Your task to perform on an android device: change alarm snooze length Image 0: 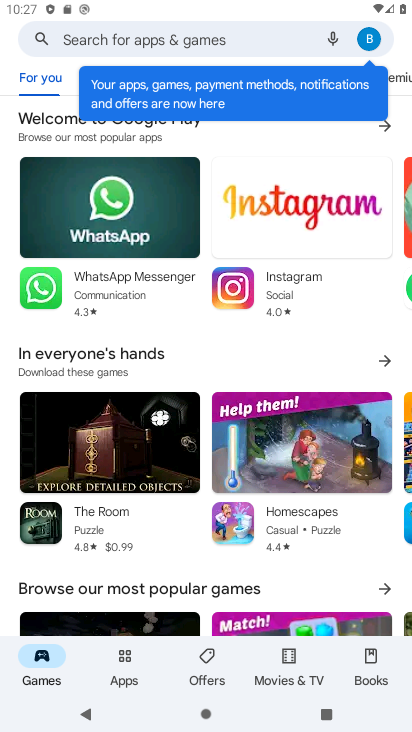
Step 0: press home button
Your task to perform on an android device: change alarm snooze length Image 1: 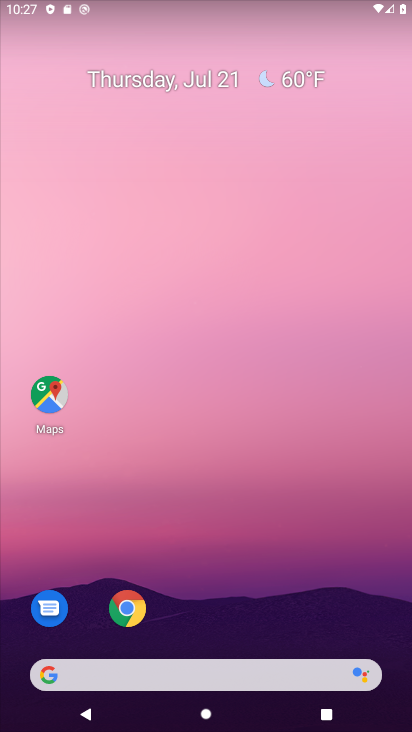
Step 1: drag from (246, 613) to (271, 3)
Your task to perform on an android device: change alarm snooze length Image 2: 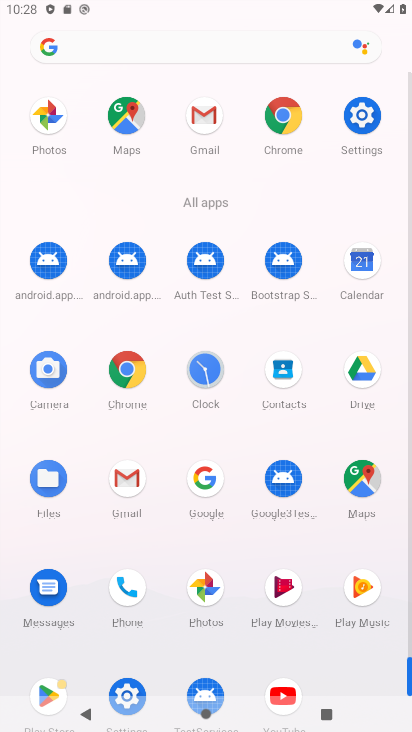
Step 2: drag from (152, 631) to (178, 441)
Your task to perform on an android device: change alarm snooze length Image 3: 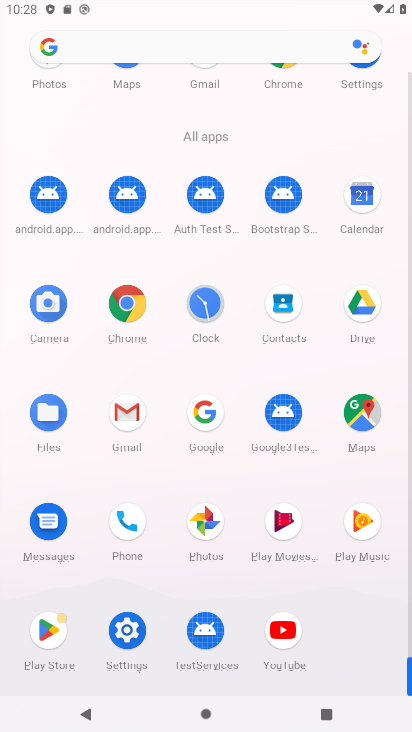
Step 3: click (117, 632)
Your task to perform on an android device: change alarm snooze length Image 4: 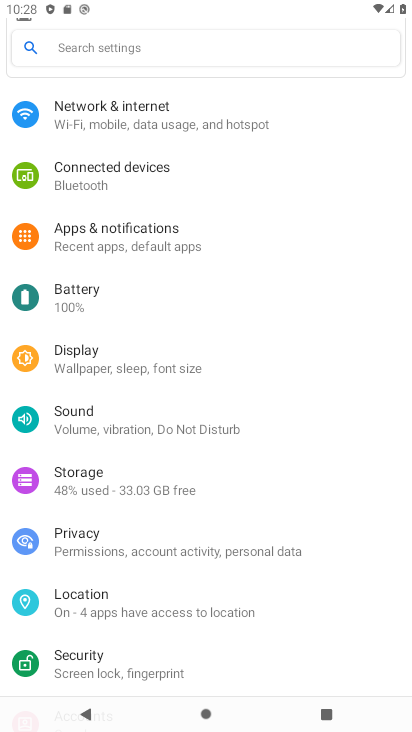
Step 4: press home button
Your task to perform on an android device: change alarm snooze length Image 5: 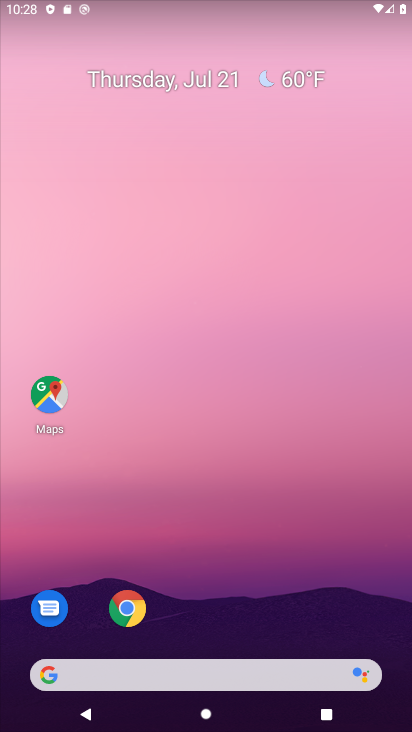
Step 5: click (246, 64)
Your task to perform on an android device: change alarm snooze length Image 6: 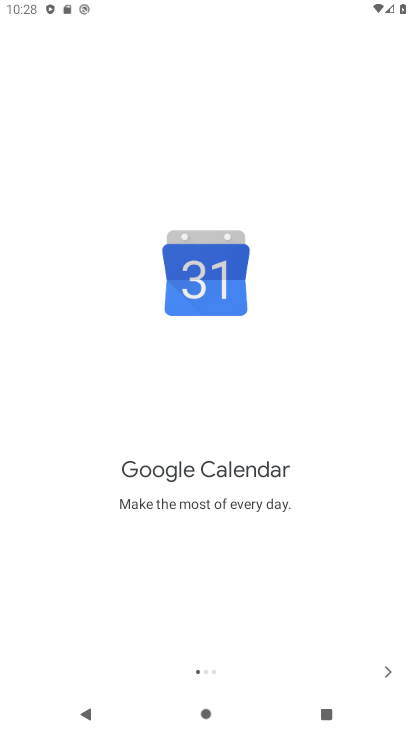
Step 6: press home button
Your task to perform on an android device: change alarm snooze length Image 7: 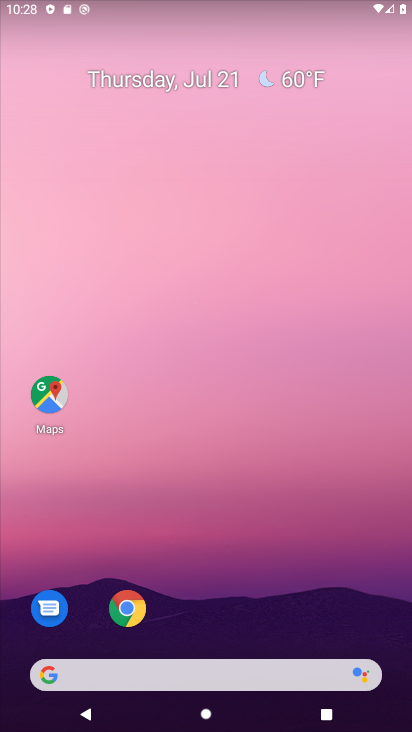
Step 7: drag from (173, 636) to (211, 12)
Your task to perform on an android device: change alarm snooze length Image 8: 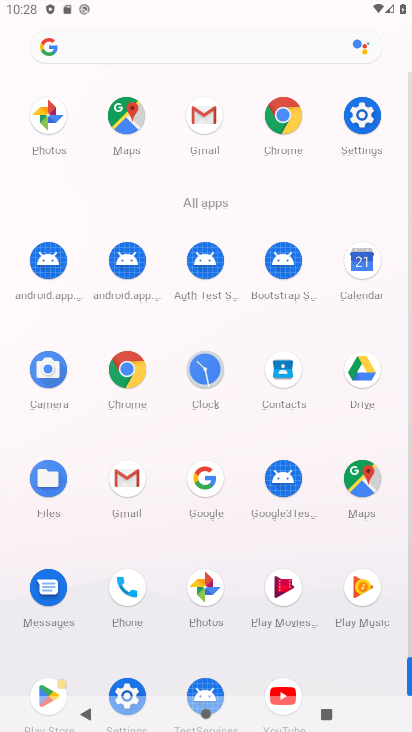
Step 8: click (206, 374)
Your task to perform on an android device: change alarm snooze length Image 9: 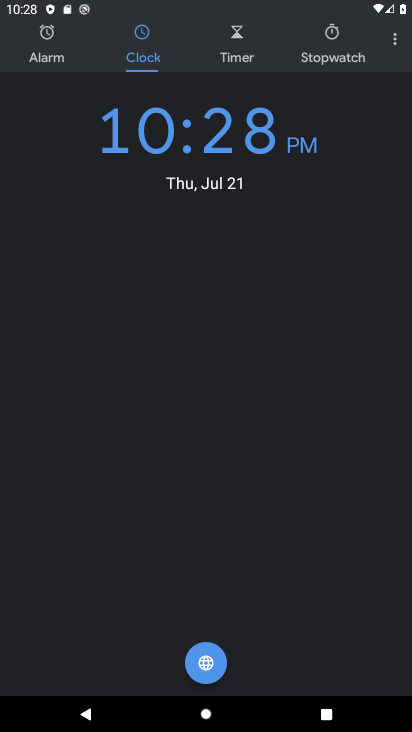
Step 9: click (402, 41)
Your task to perform on an android device: change alarm snooze length Image 10: 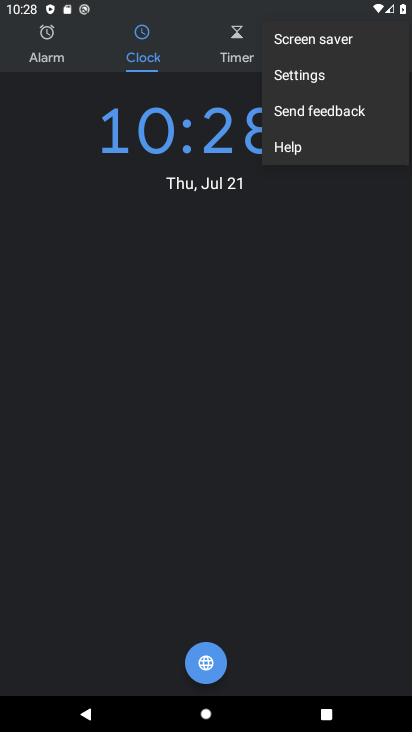
Step 10: click (277, 75)
Your task to perform on an android device: change alarm snooze length Image 11: 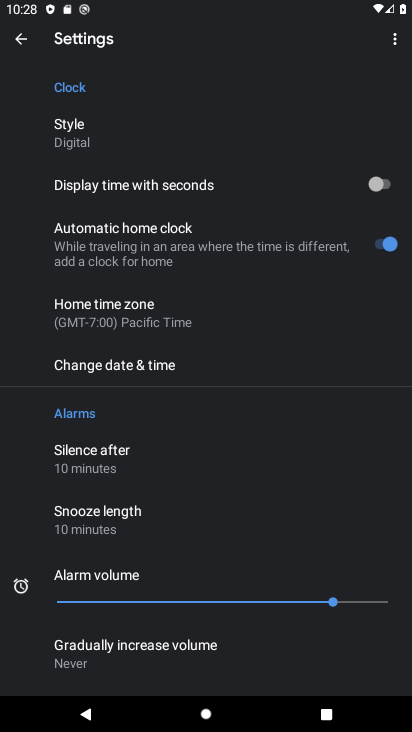
Step 11: click (86, 529)
Your task to perform on an android device: change alarm snooze length Image 12: 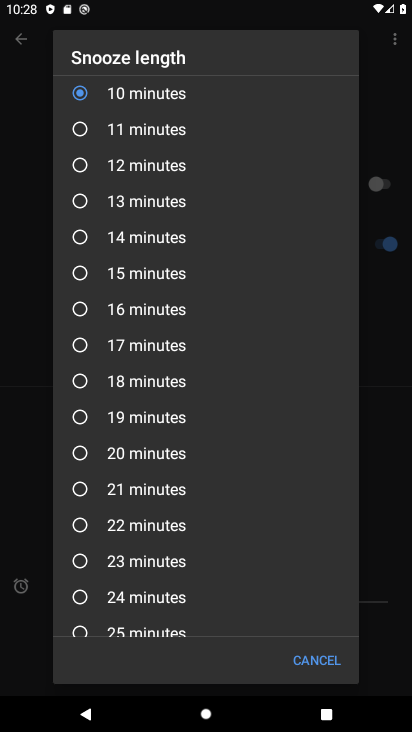
Step 12: click (81, 450)
Your task to perform on an android device: change alarm snooze length Image 13: 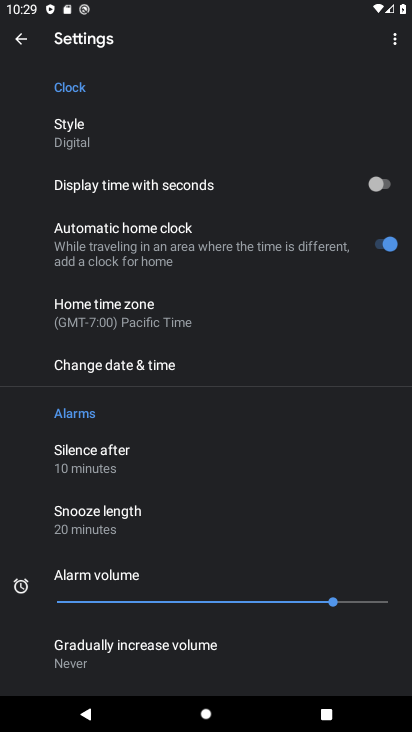
Step 13: task complete